Your task to perform on an android device: Open Reddit.com Image 0: 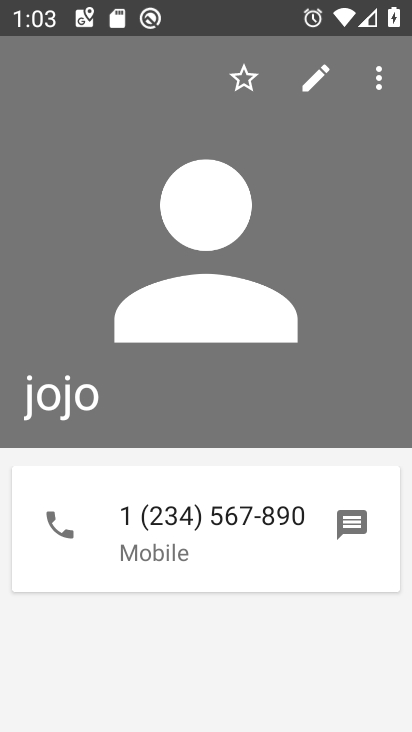
Step 0: press home button
Your task to perform on an android device: Open Reddit.com Image 1: 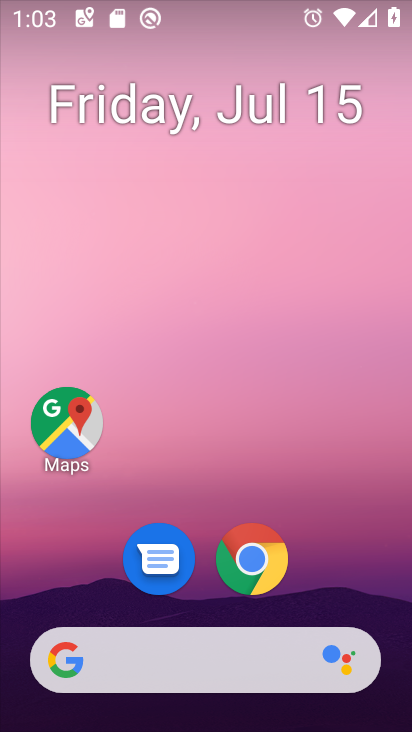
Step 1: drag from (372, 588) to (393, 80)
Your task to perform on an android device: Open Reddit.com Image 2: 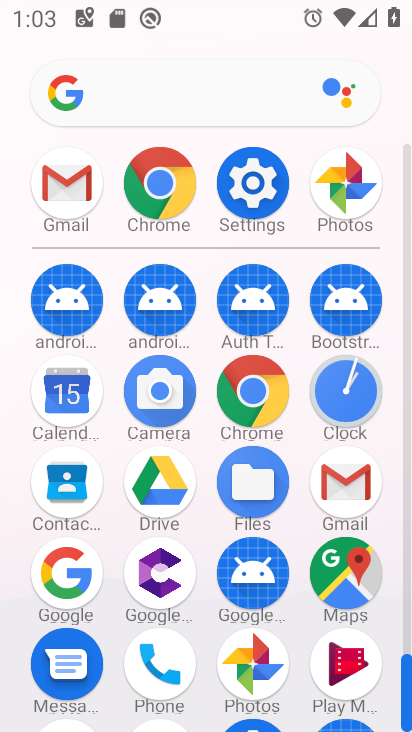
Step 2: click (251, 395)
Your task to perform on an android device: Open Reddit.com Image 3: 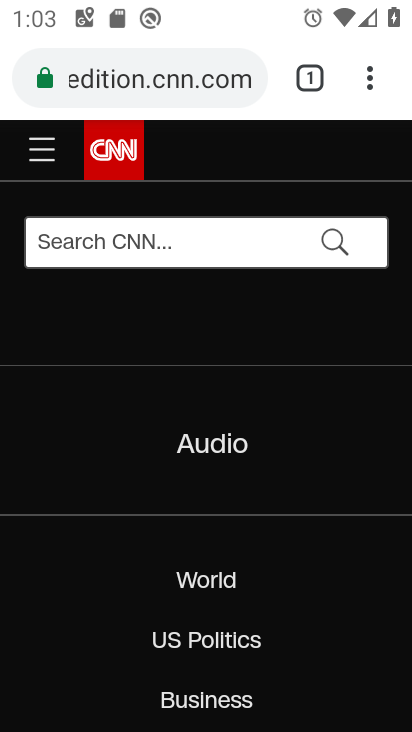
Step 3: click (218, 75)
Your task to perform on an android device: Open Reddit.com Image 4: 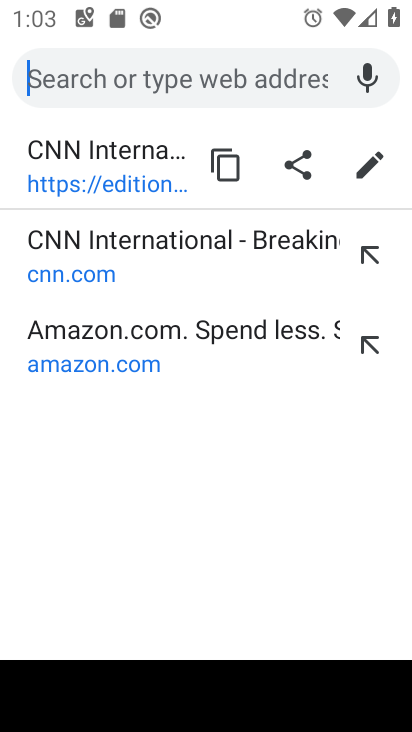
Step 4: type "reddit.com"
Your task to perform on an android device: Open Reddit.com Image 5: 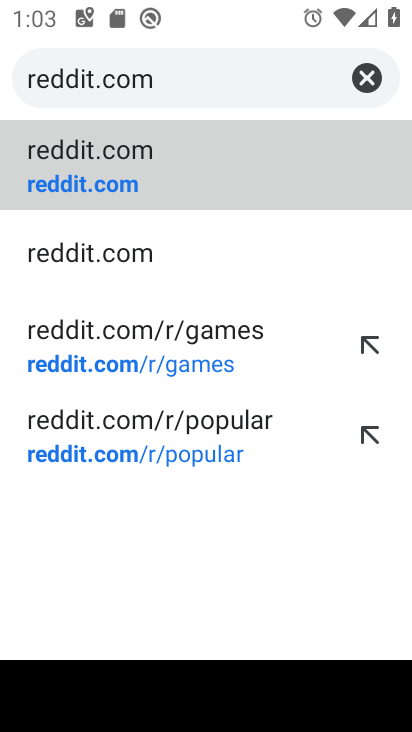
Step 5: click (375, 196)
Your task to perform on an android device: Open Reddit.com Image 6: 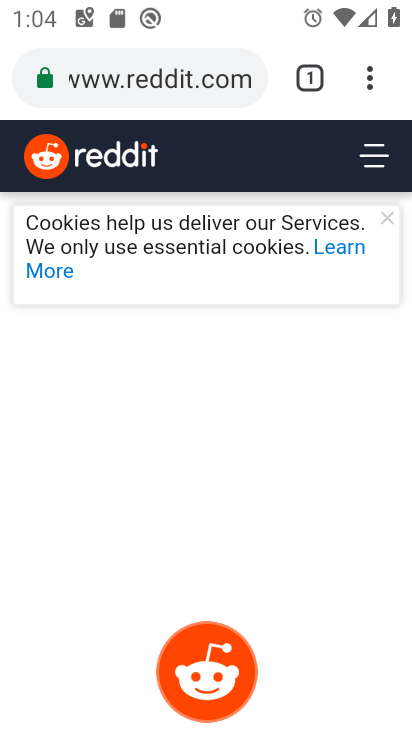
Step 6: task complete